Your task to perform on an android device: View the shopping cart on ebay.com. Search for razer thresher on ebay.com, select the first entry, and add it to the cart. Image 0: 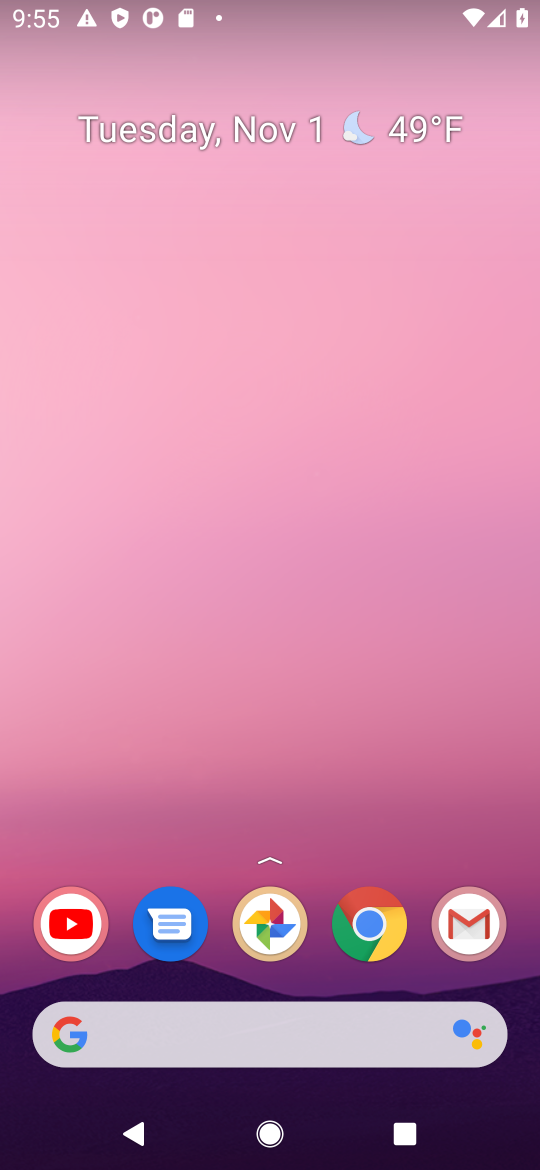
Step 0: click (372, 928)
Your task to perform on an android device: View the shopping cart on ebay.com. Search for razer thresher on ebay.com, select the first entry, and add it to the cart. Image 1: 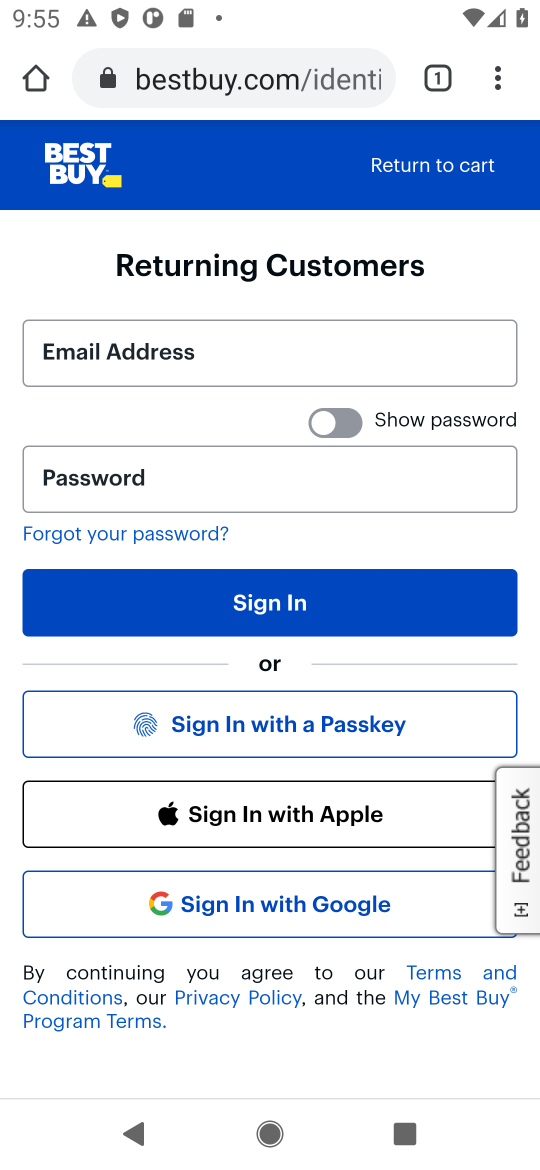
Step 1: click (227, 82)
Your task to perform on an android device: View the shopping cart on ebay.com. Search for razer thresher on ebay.com, select the first entry, and add it to the cart. Image 2: 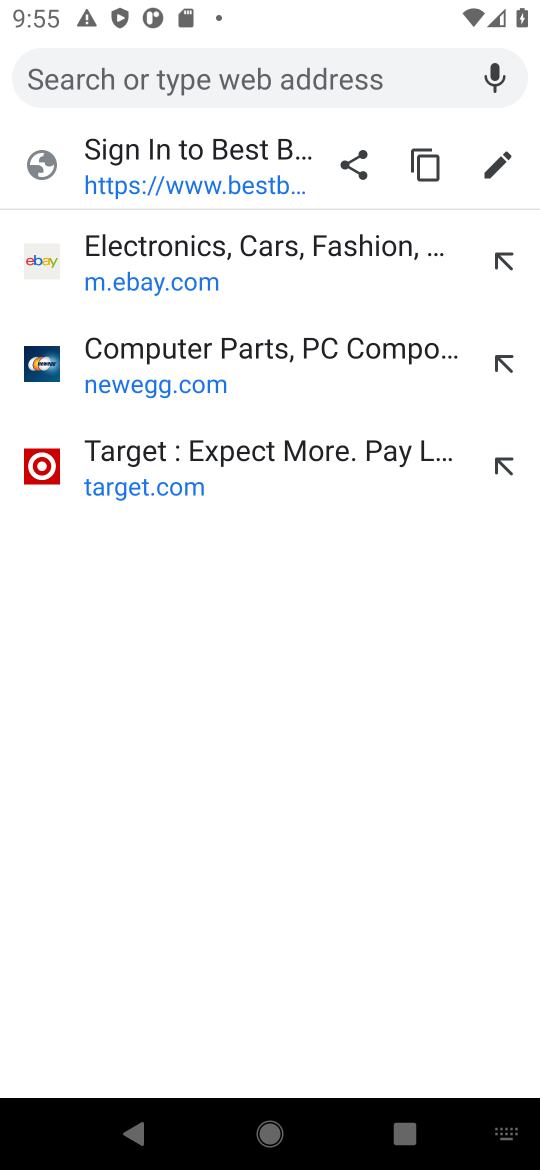
Step 2: type "ebay"
Your task to perform on an android device: View the shopping cart on ebay.com. Search for razer thresher on ebay.com, select the first entry, and add it to the cart. Image 3: 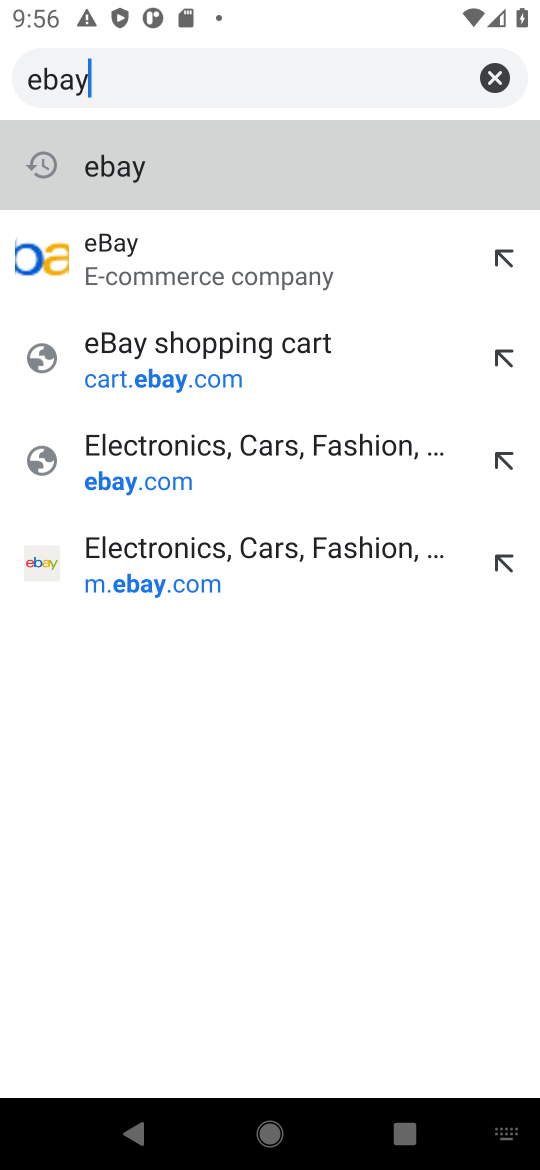
Step 3: click (116, 183)
Your task to perform on an android device: View the shopping cart on ebay.com. Search for razer thresher on ebay.com, select the first entry, and add it to the cart. Image 4: 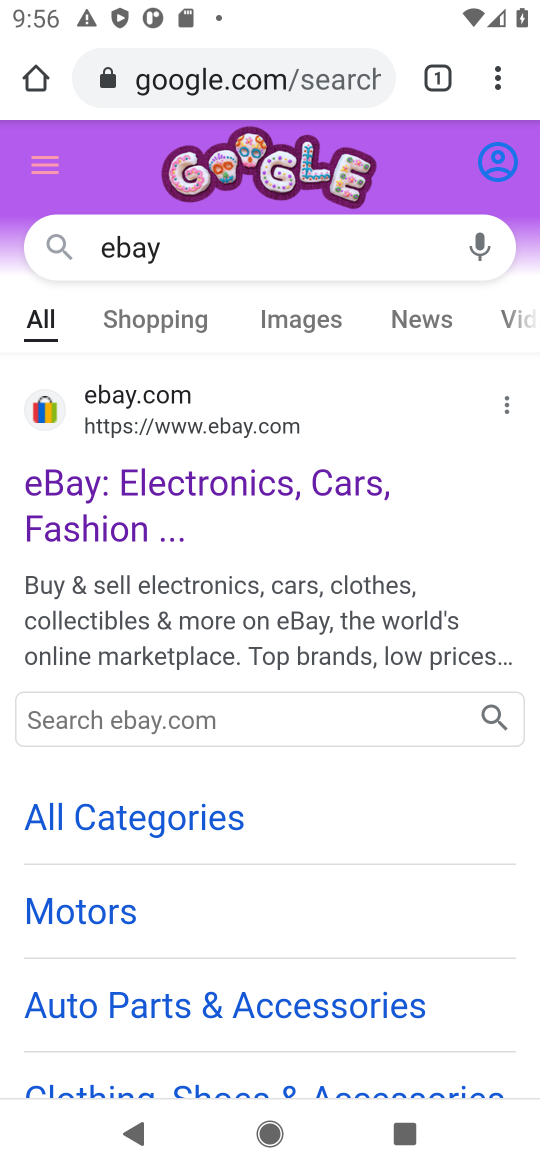
Step 4: click (129, 476)
Your task to perform on an android device: View the shopping cart on ebay.com. Search for razer thresher on ebay.com, select the first entry, and add it to the cart. Image 5: 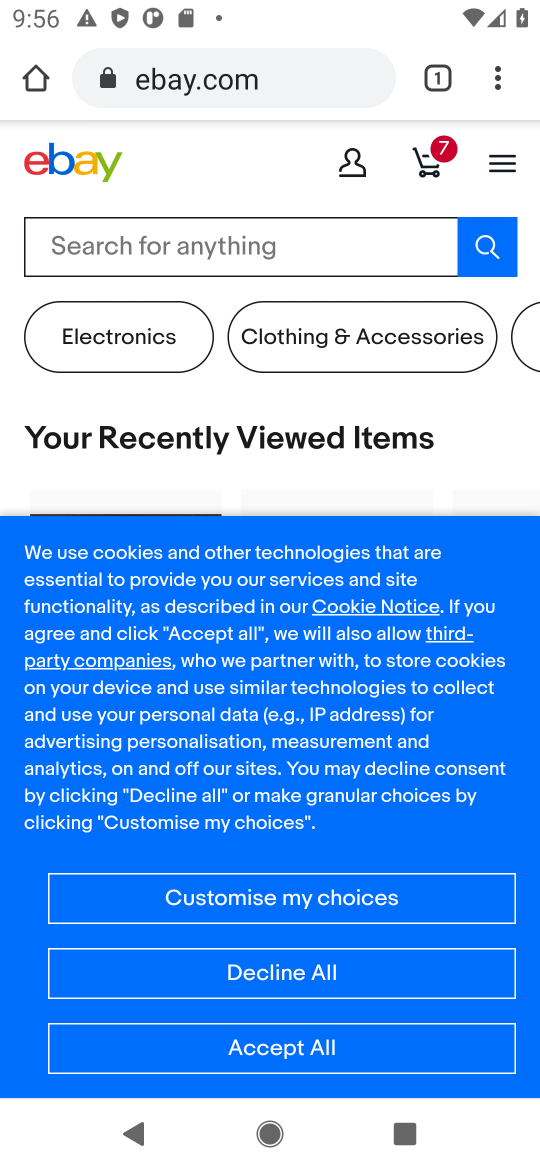
Step 5: click (438, 167)
Your task to perform on an android device: View the shopping cart on ebay.com. Search for razer thresher on ebay.com, select the first entry, and add it to the cart. Image 6: 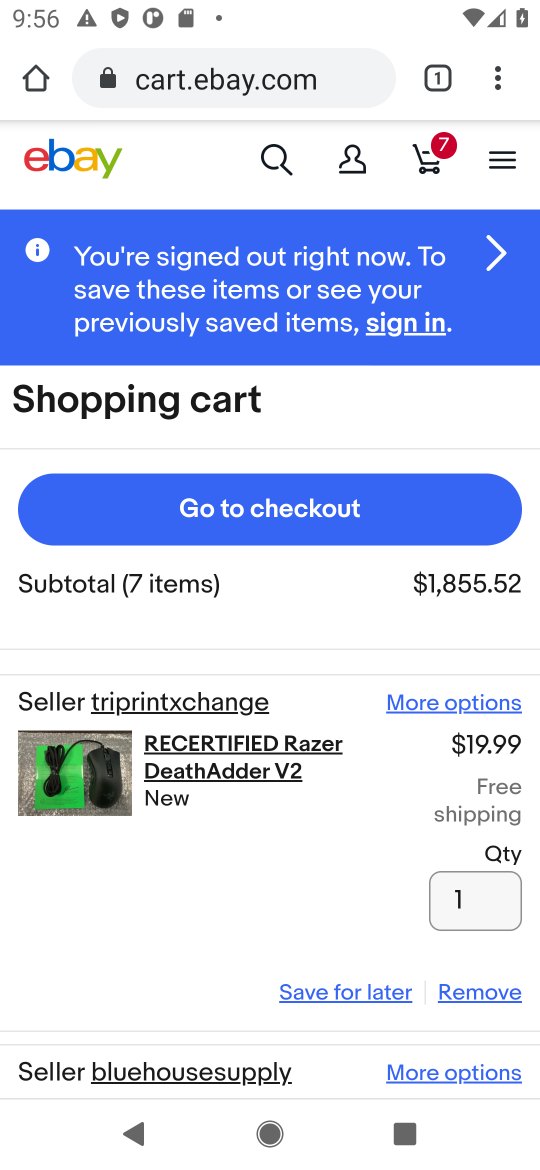
Step 6: click (276, 160)
Your task to perform on an android device: View the shopping cart on ebay.com. Search for razer thresher on ebay.com, select the first entry, and add it to the cart. Image 7: 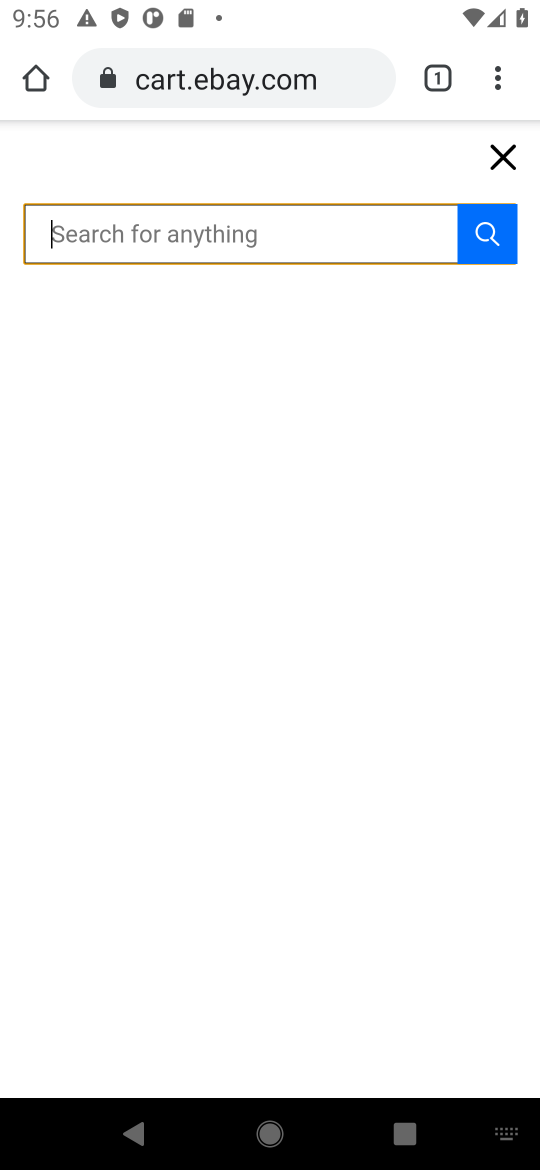
Step 7: type "razer thewsher"
Your task to perform on an android device: View the shopping cart on ebay.com. Search for razer thresher on ebay.com, select the first entry, and add it to the cart. Image 8: 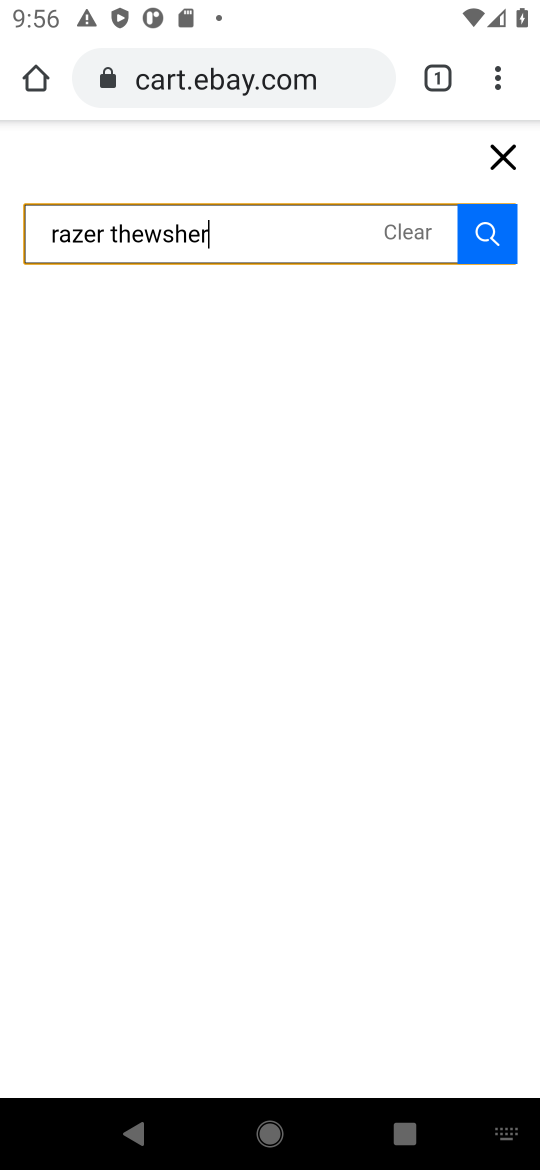
Step 8: click (481, 235)
Your task to perform on an android device: View the shopping cart on ebay.com. Search for razer thresher on ebay.com, select the first entry, and add it to the cart. Image 9: 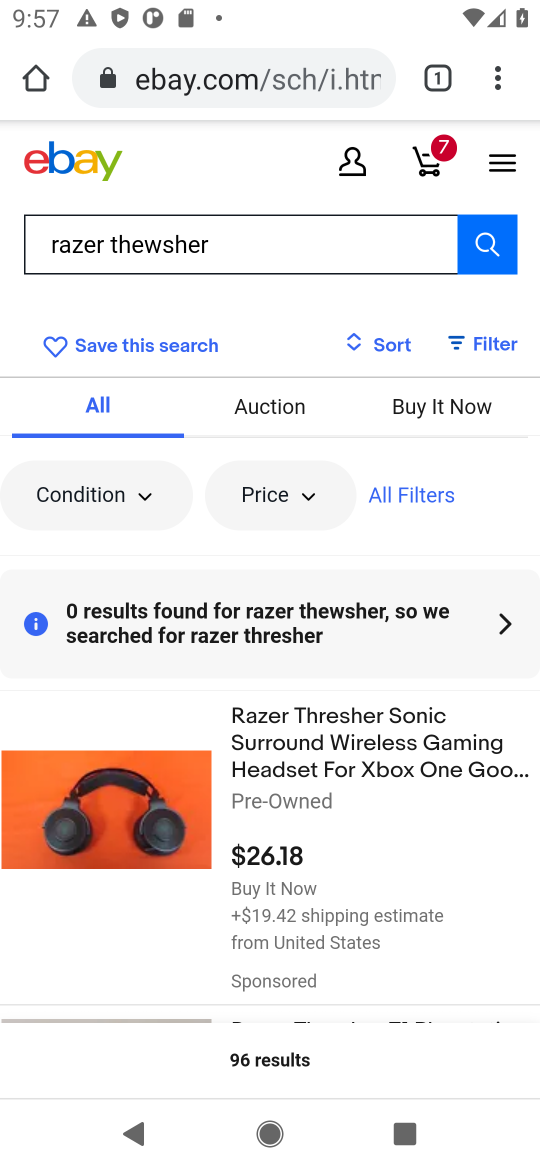
Step 9: click (256, 732)
Your task to perform on an android device: View the shopping cart on ebay.com. Search for razer thresher on ebay.com, select the first entry, and add it to the cart. Image 10: 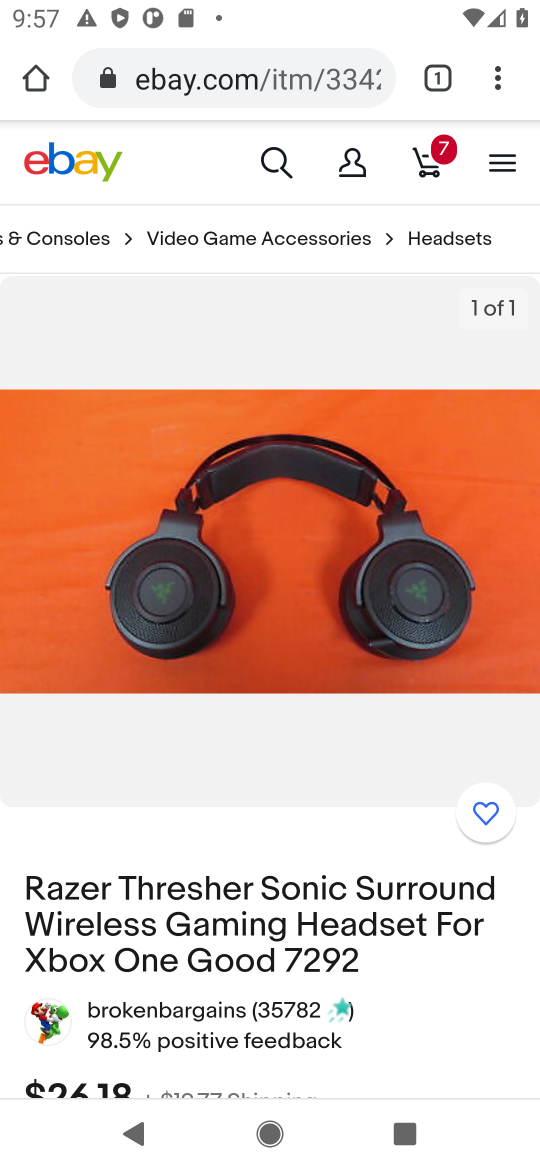
Step 10: drag from (416, 984) to (362, 694)
Your task to perform on an android device: View the shopping cart on ebay.com. Search for razer thresher on ebay.com, select the first entry, and add it to the cart. Image 11: 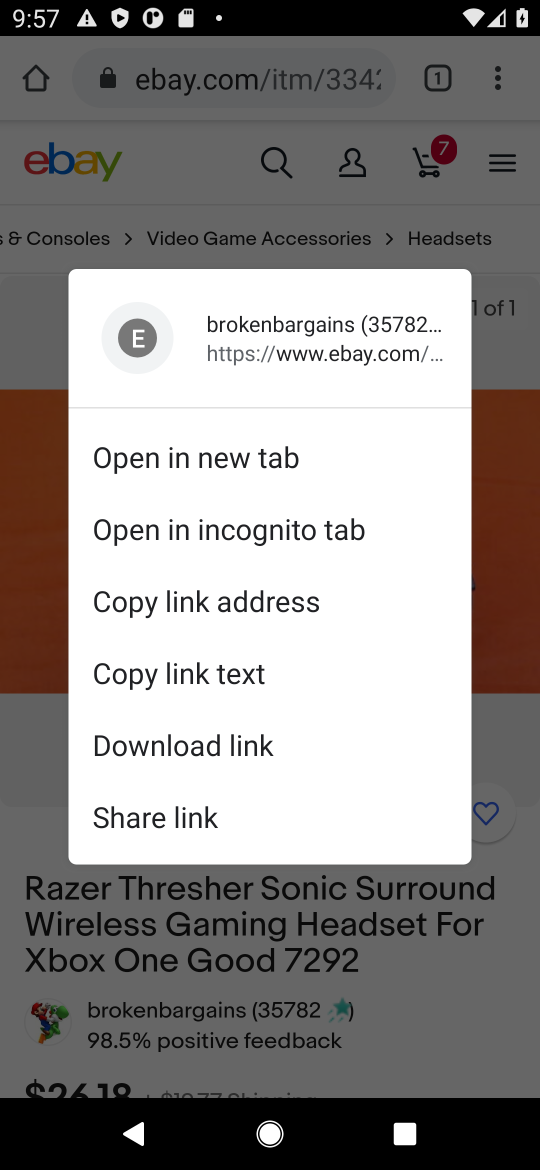
Step 11: click (479, 993)
Your task to perform on an android device: View the shopping cart on ebay.com. Search for razer thresher on ebay.com, select the first entry, and add it to the cart. Image 12: 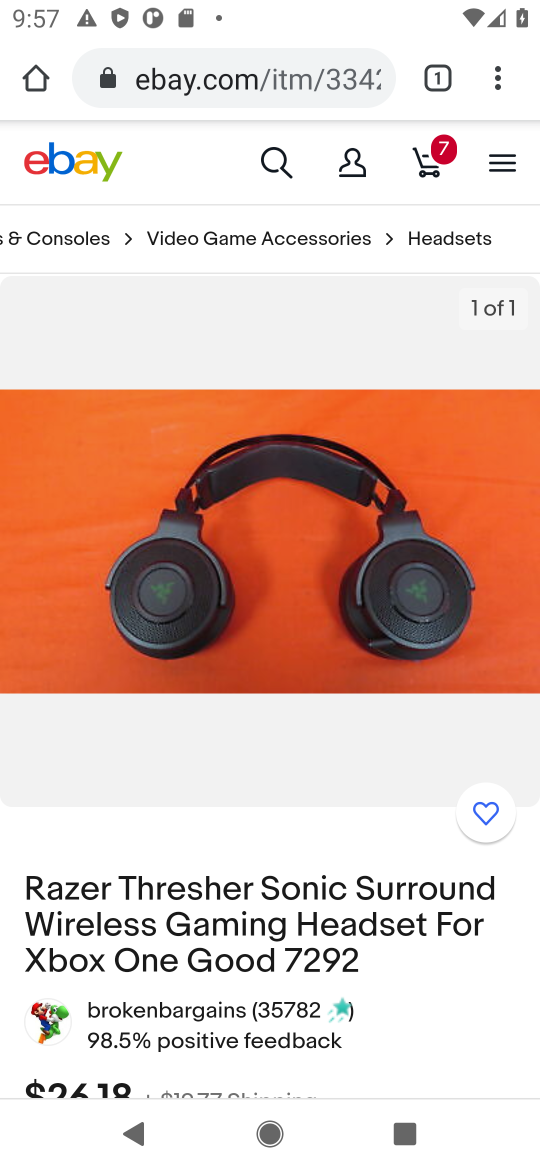
Step 12: drag from (479, 993) to (298, 171)
Your task to perform on an android device: View the shopping cart on ebay.com. Search for razer thresher on ebay.com, select the first entry, and add it to the cart. Image 13: 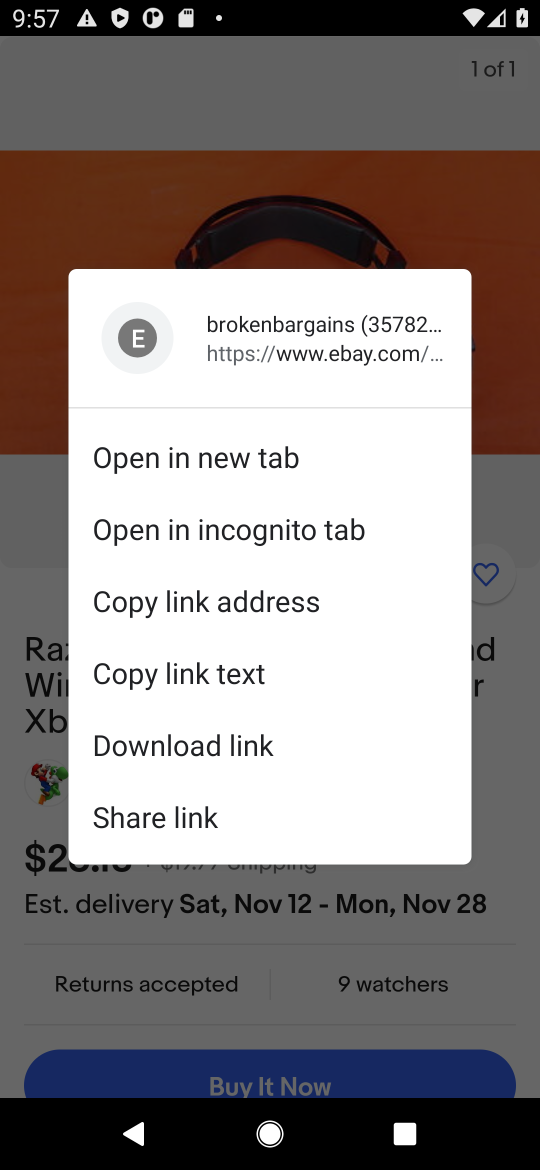
Step 13: click (530, 816)
Your task to perform on an android device: View the shopping cart on ebay.com. Search for razer thresher on ebay.com, select the first entry, and add it to the cart. Image 14: 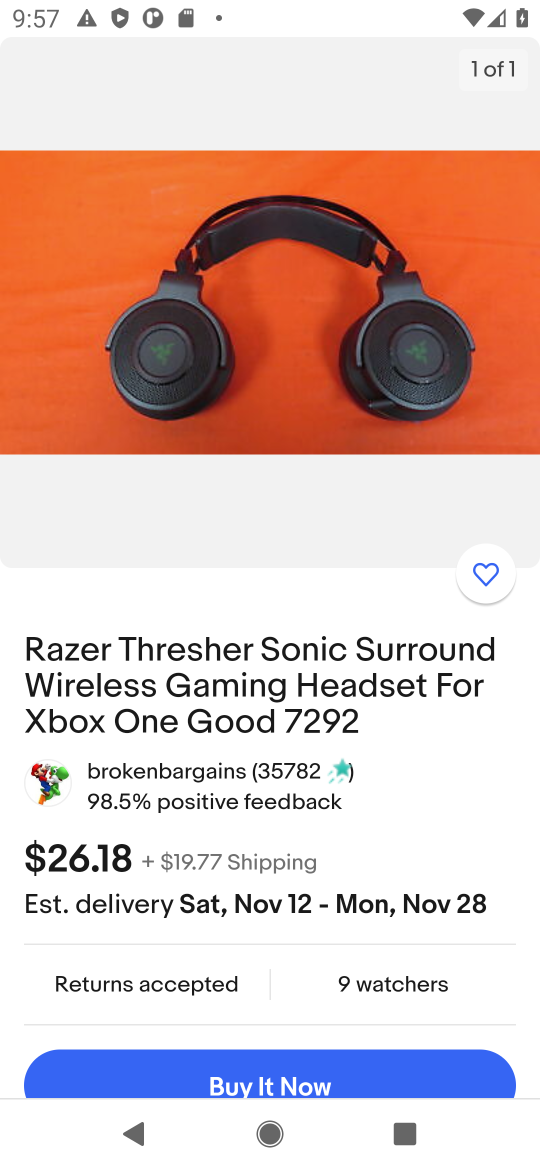
Step 14: drag from (530, 816) to (502, 413)
Your task to perform on an android device: View the shopping cart on ebay.com. Search for razer thresher on ebay.com, select the first entry, and add it to the cart. Image 15: 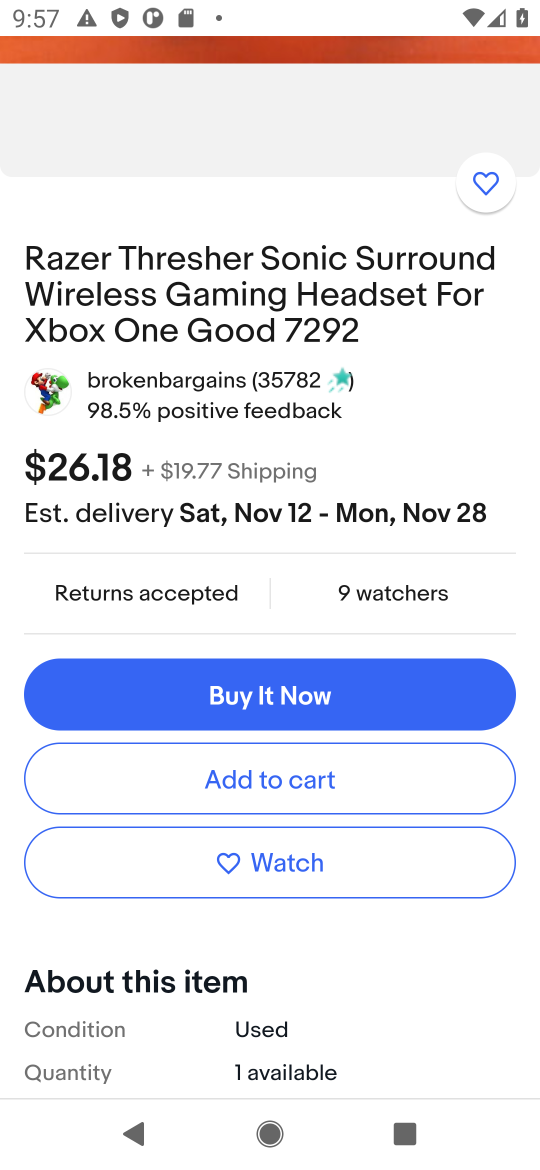
Step 15: click (295, 778)
Your task to perform on an android device: View the shopping cart on ebay.com. Search for razer thresher on ebay.com, select the first entry, and add it to the cart. Image 16: 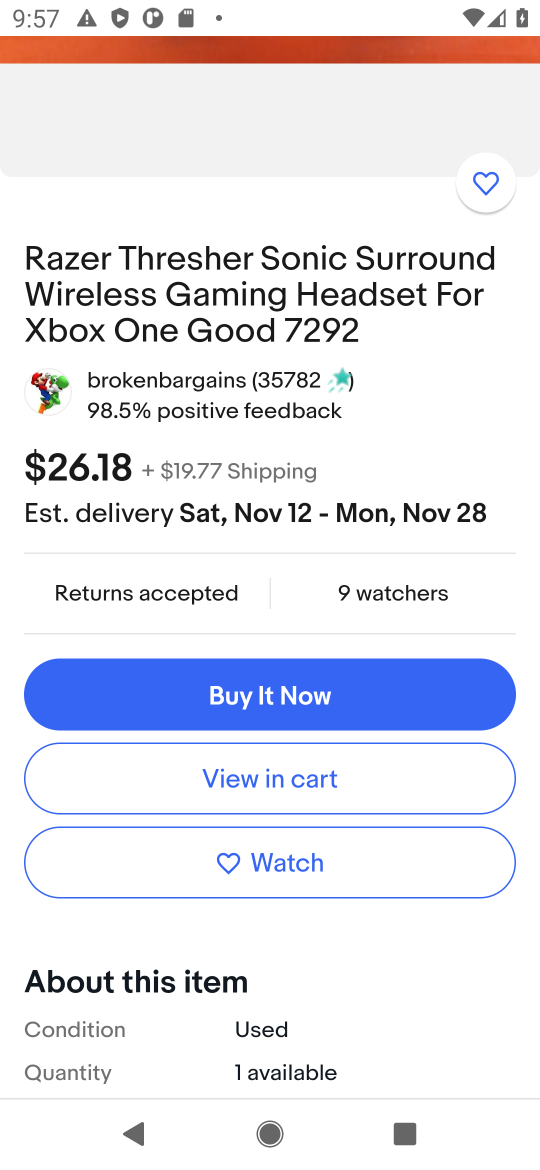
Step 16: task complete